Your task to perform on an android device: Go to accessibility settings Image 0: 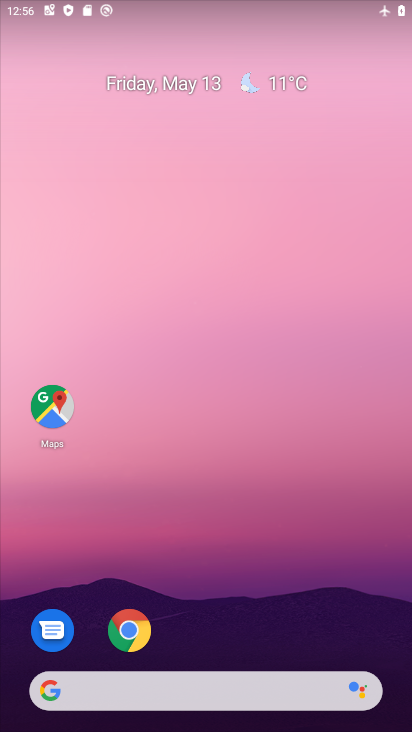
Step 0: drag from (298, 643) to (319, 6)
Your task to perform on an android device: Go to accessibility settings Image 1: 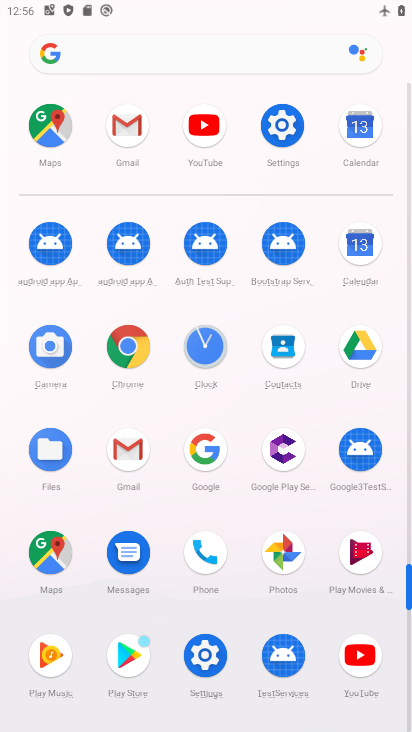
Step 1: click (278, 132)
Your task to perform on an android device: Go to accessibility settings Image 2: 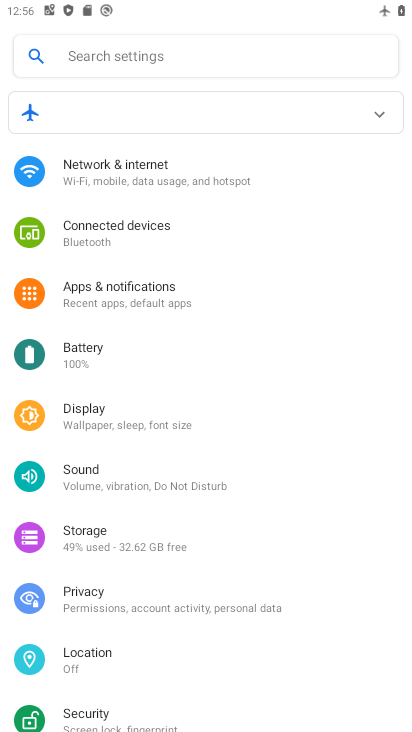
Step 2: drag from (327, 588) to (298, 129)
Your task to perform on an android device: Go to accessibility settings Image 3: 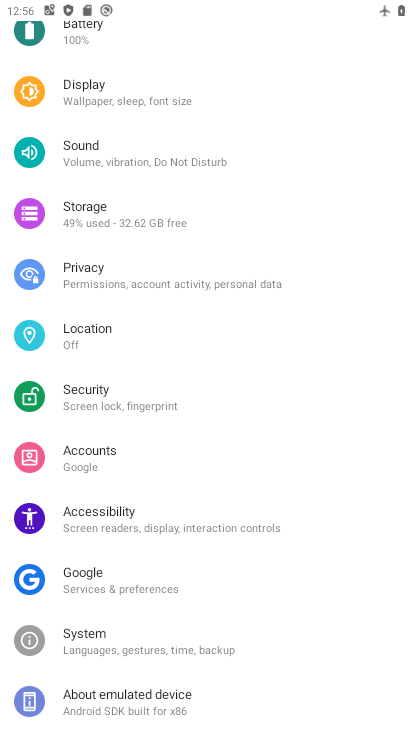
Step 3: click (104, 529)
Your task to perform on an android device: Go to accessibility settings Image 4: 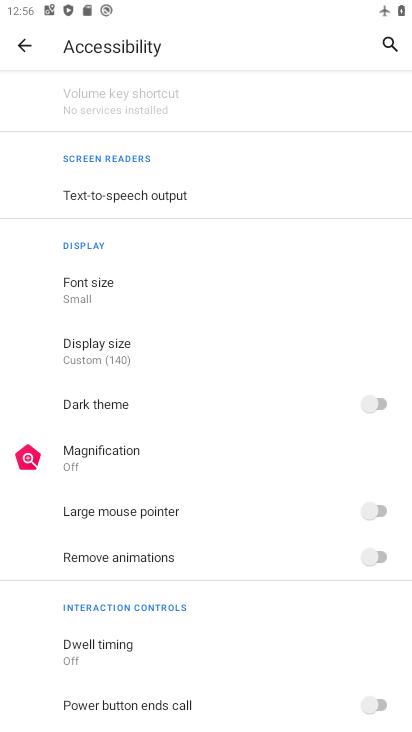
Step 4: task complete